Your task to perform on an android device: toggle location history Image 0: 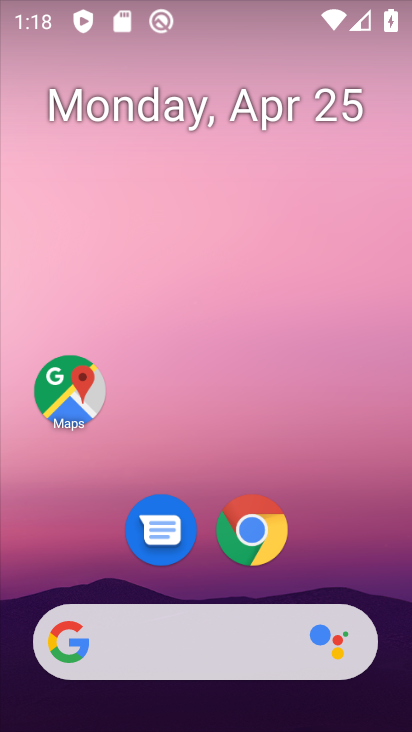
Step 0: drag from (346, 568) to (317, 183)
Your task to perform on an android device: toggle location history Image 1: 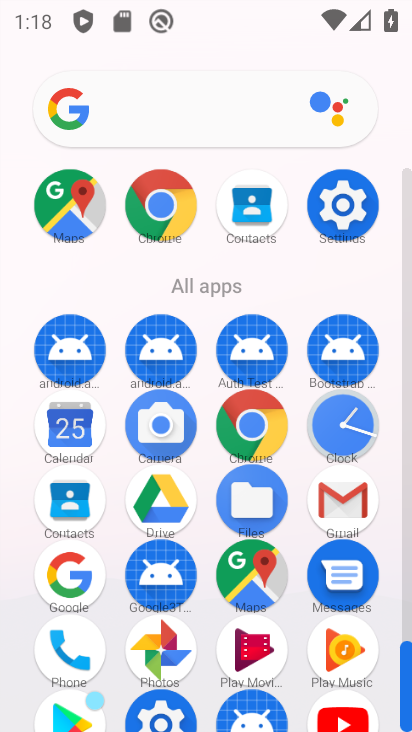
Step 1: click (362, 200)
Your task to perform on an android device: toggle location history Image 2: 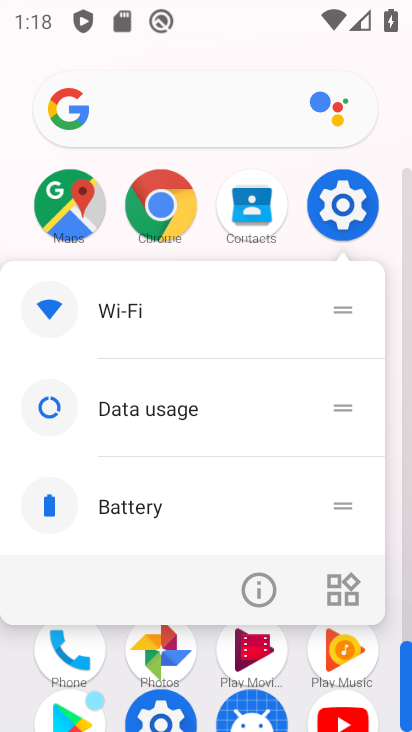
Step 2: click (345, 229)
Your task to perform on an android device: toggle location history Image 3: 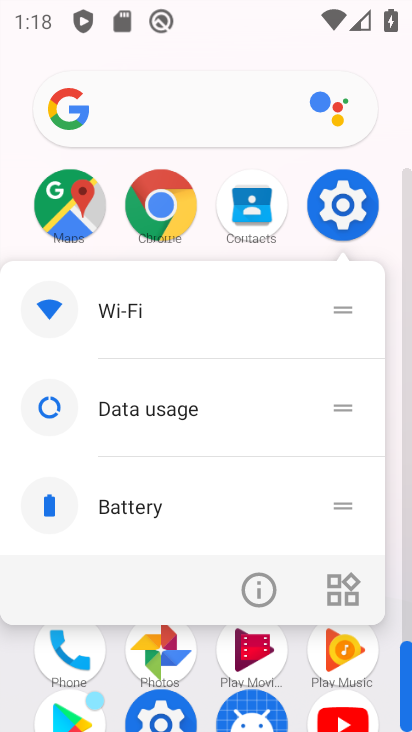
Step 3: click (346, 230)
Your task to perform on an android device: toggle location history Image 4: 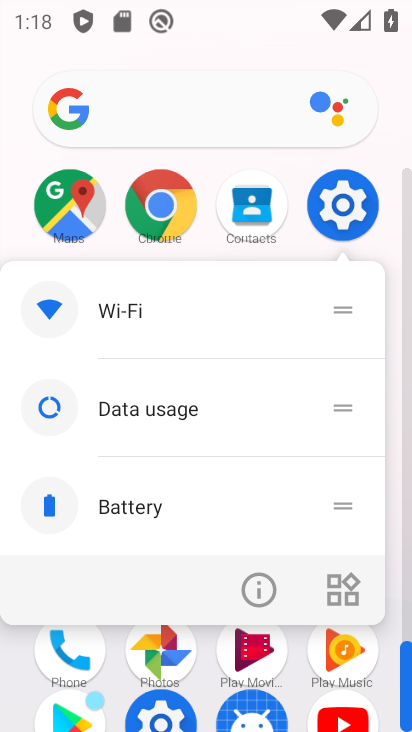
Step 4: drag from (388, 209) to (389, 104)
Your task to perform on an android device: toggle location history Image 5: 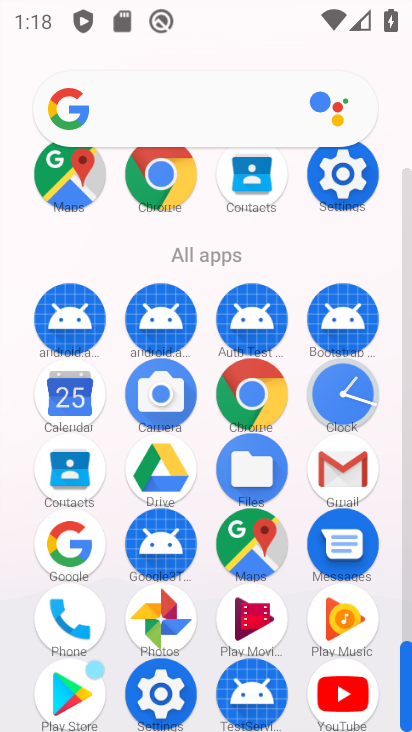
Step 5: click (167, 704)
Your task to perform on an android device: toggle location history Image 6: 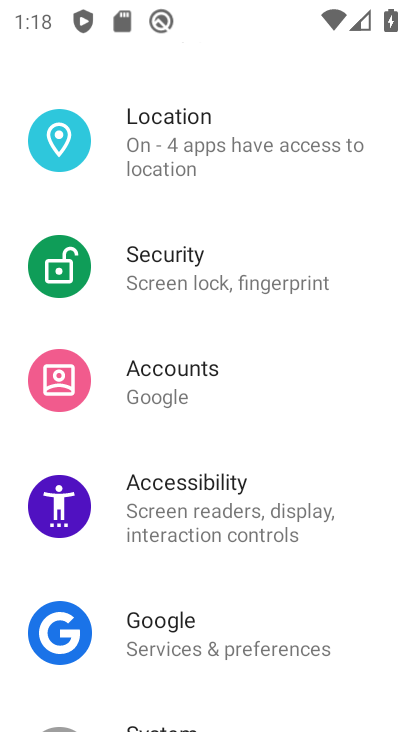
Step 6: click (228, 151)
Your task to perform on an android device: toggle location history Image 7: 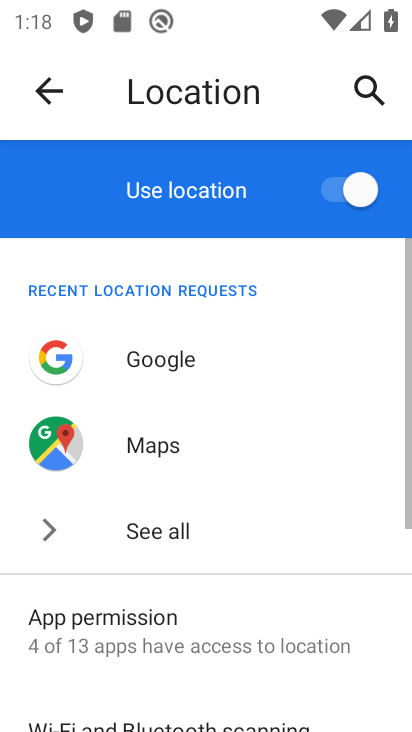
Step 7: drag from (270, 621) to (270, 390)
Your task to perform on an android device: toggle location history Image 8: 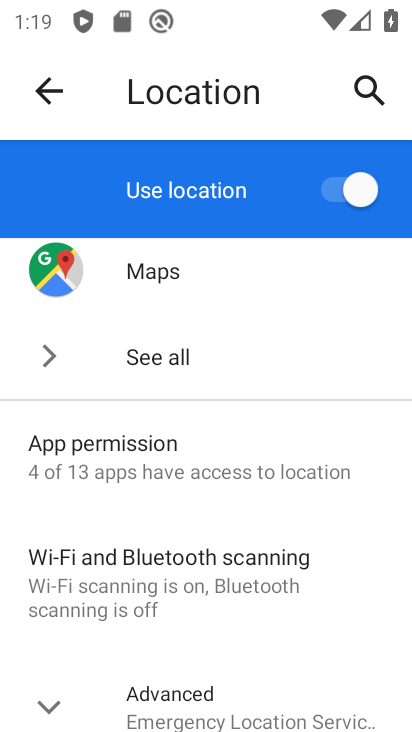
Step 8: drag from (244, 645) to (284, 319)
Your task to perform on an android device: toggle location history Image 9: 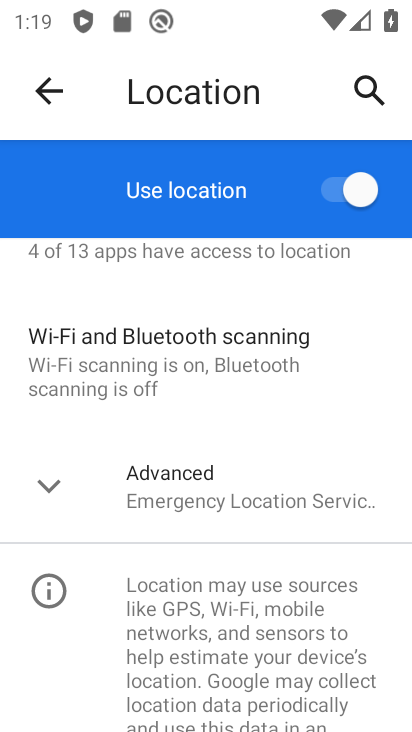
Step 9: click (264, 501)
Your task to perform on an android device: toggle location history Image 10: 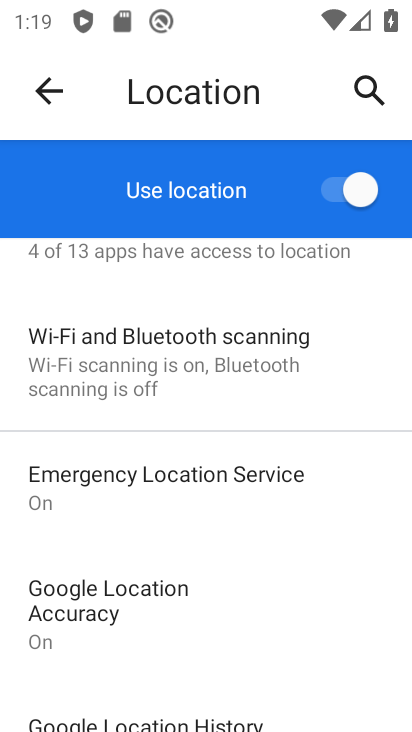
Step 10: drag from (267, 629) to (325, 336)
Your task to perform on an android device: toggle location history Image 11: 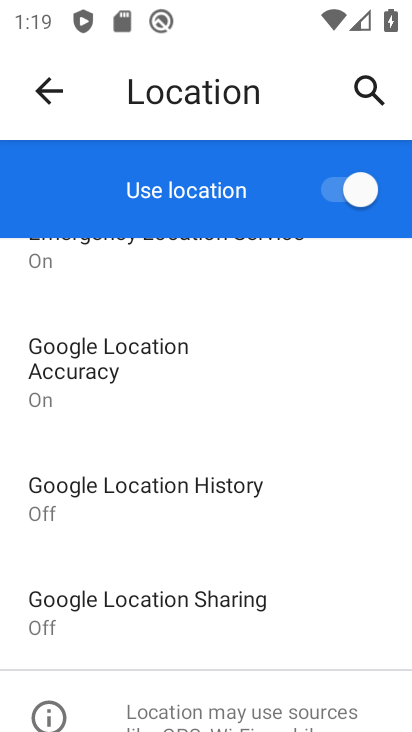
Step 11: click (230, 531)
Your task to perform on an android device: toggle location history Image 12: 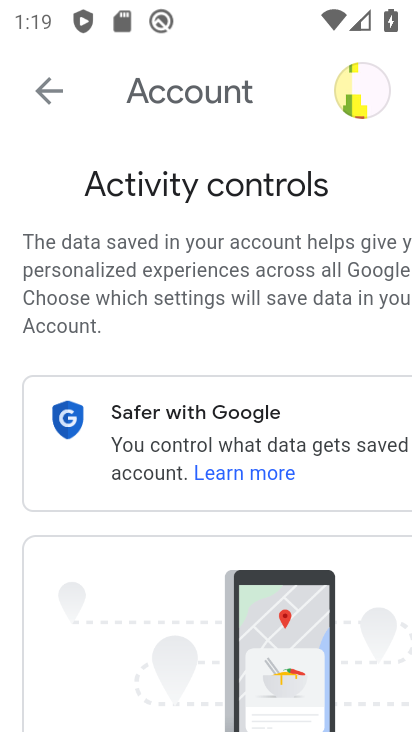
Step 12: drag from (160, 656) to (210, 344)
Your task to perform on an android device: toggle location history Image 13: 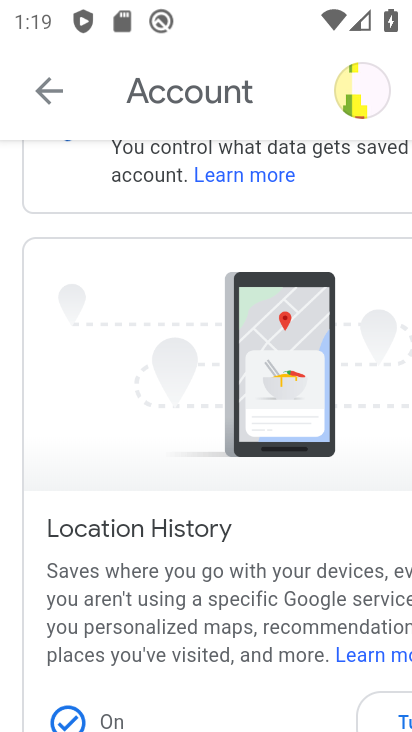
Step 13: drag from (114, 716) to (131, 483)
Your task to perform on an android device: toggle location history Image 14: 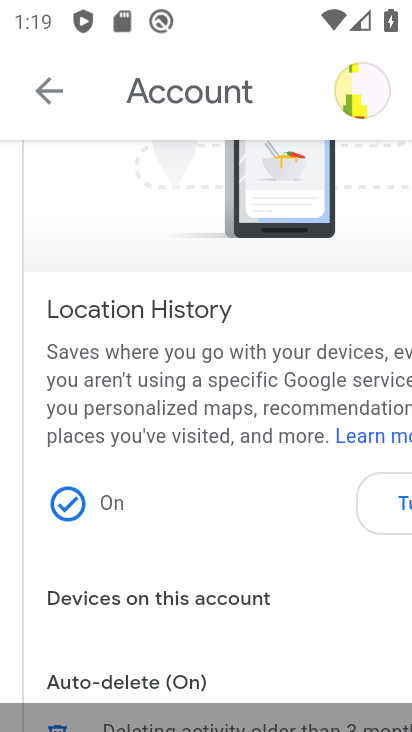
Step 14: click (406, 518)
Your task to perform on an android device: toggle location history Image 15: 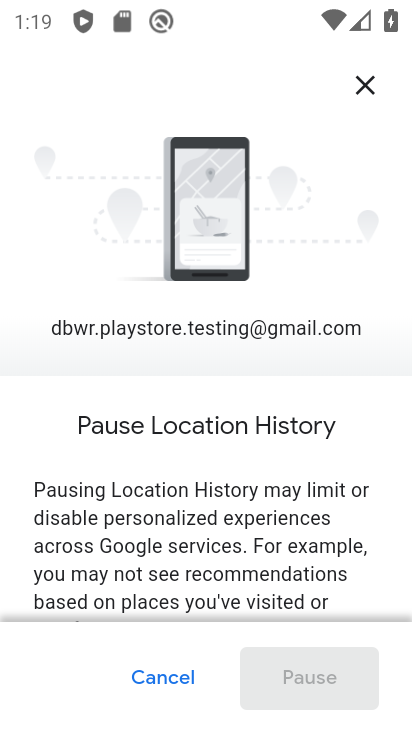
Step 15: drag from (281, 540) to (292, 154)
Your task to perform on an android device: toggle location history Image 16: 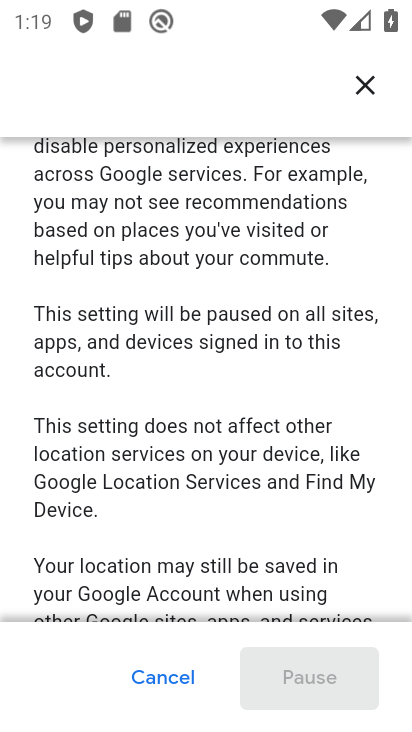
Step 16: drag from (226, 543) to (239, 210)
Your task to perform on an android device: toggle location history Image 17: 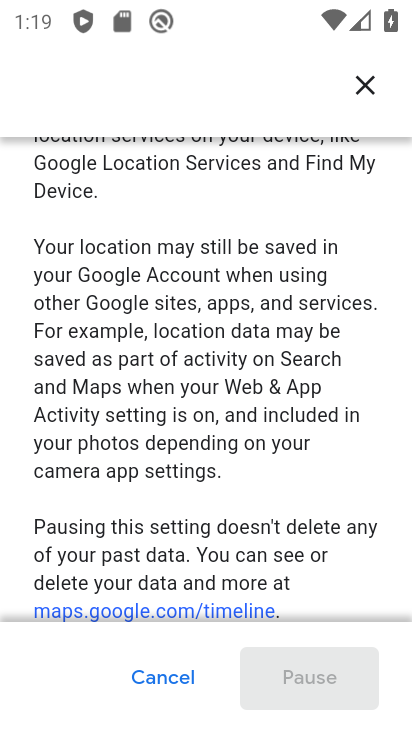
Step 17: drag from (231, 542) to (227, 267)
Your task to perform on an android device: toggle location history Image 18: 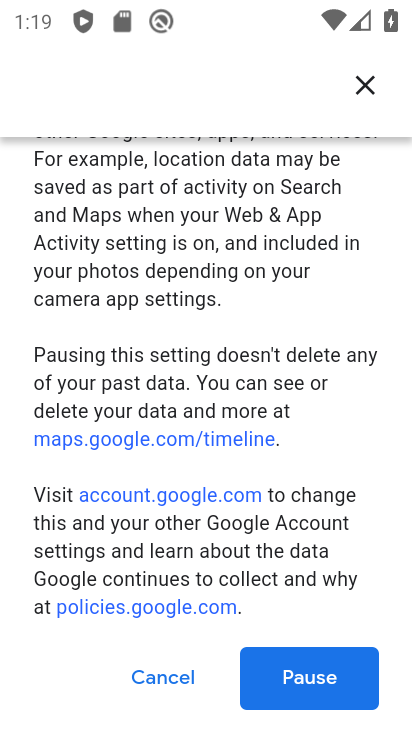
Step 18: click (306, 671)
Your task to perform on an android device: toggle location history Image 19: 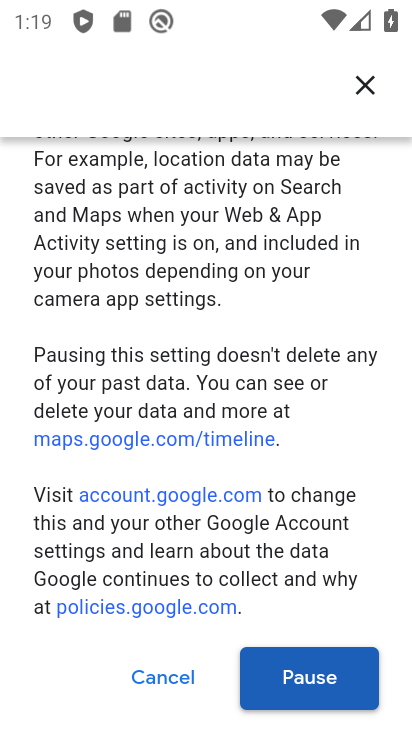
Step 19: click (303, 658)
Your task to perform on an android device: toggle location history Image 20: 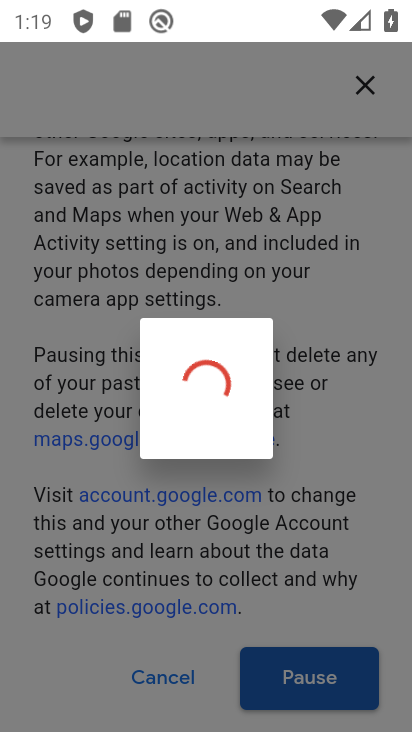
Step 20: click (311, 680)
Your task to perform on an android device: toggle location history Image 21: 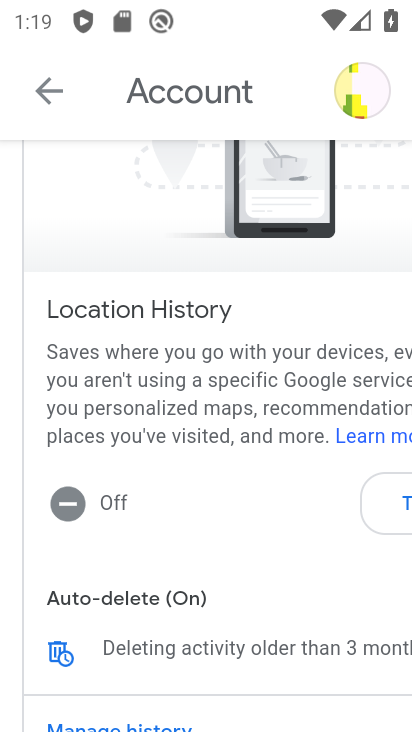
Step 21: task complete